Your task to perform on an android device: Open Chrome and go to settings Image 0: 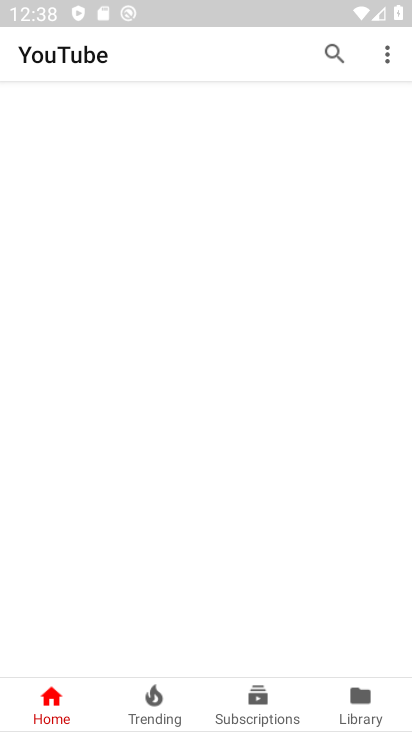
Step 0: drag from (215, 634) to (166, 394)
Your task to perform on an android device: Open Chrome and go to settings Image 1: 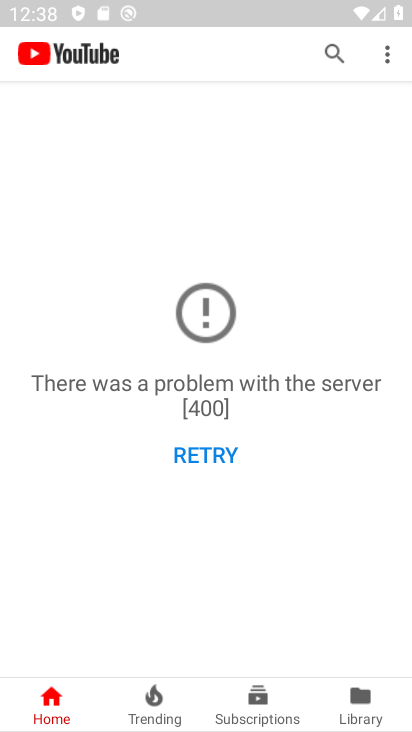
Step 1: press home button
Your task to perform on an android device: Open Chrome and go to settings Image 2: 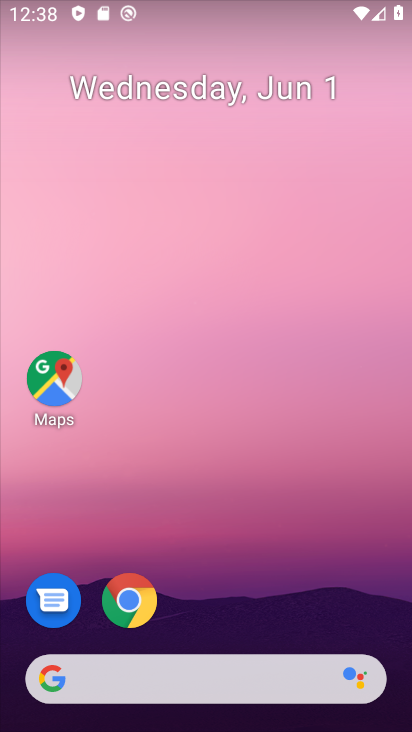
Step 2: click (142, 615)
Your task to perform on an android device: Open Chrome and go to settings Image 3: 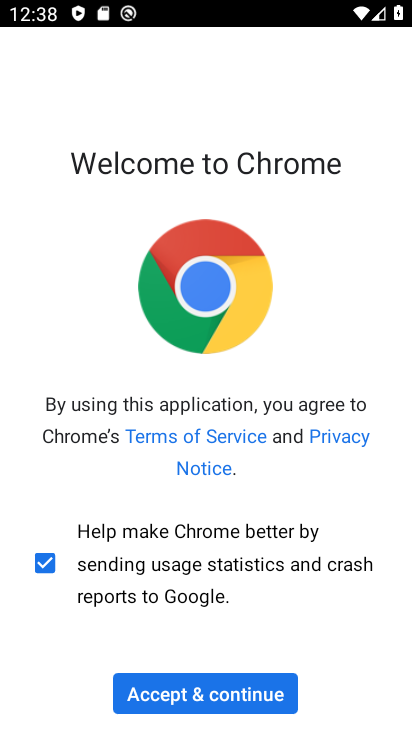
Step 3: click (170, 695)
Your task to perform on an android device: Open Chrome and go to settings Image 4: 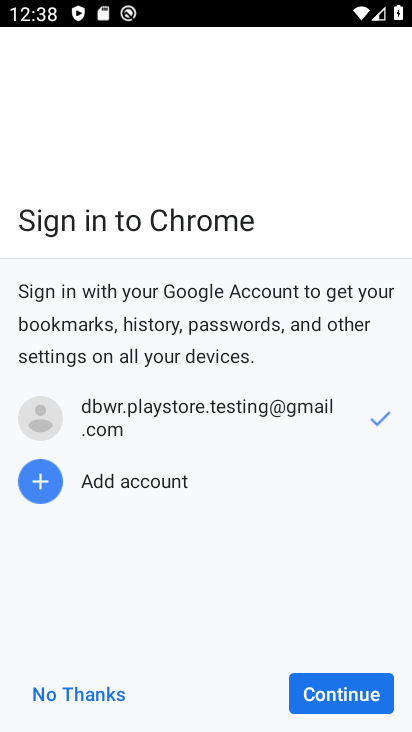
Step 4: click (348, 684)
Your task to perform on an android device: Open Chrome and go to settings Image 5: 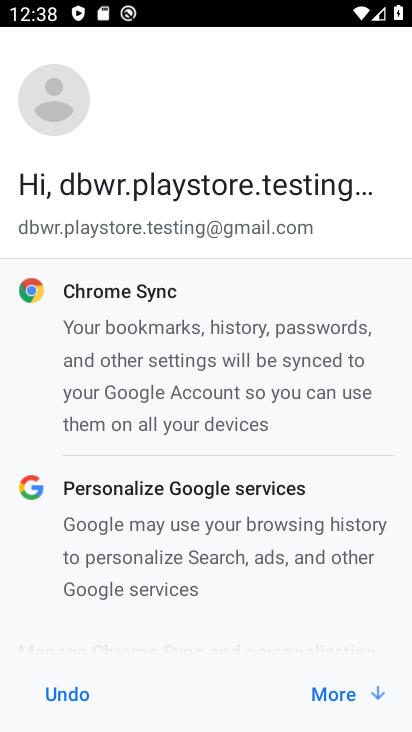
Step 5: click (346, 701)
Your task to perform on an android device: Open Chrome and go to settings Image 6: 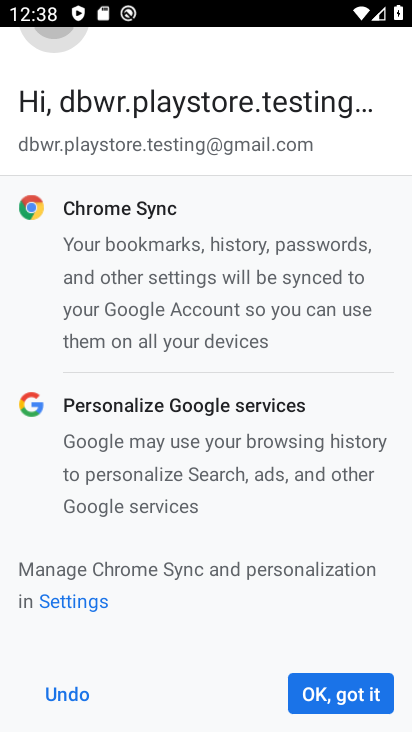
Step 6: click (342, 693)
Your task to perform on an android device: Open Chrome and go to settings Image 7: 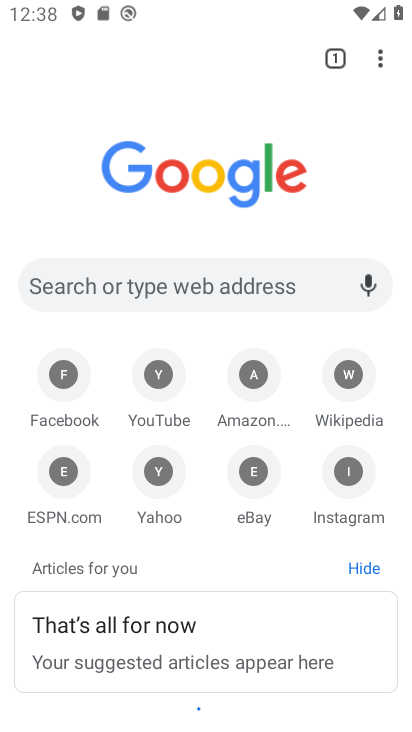
Step 7: click (378, 58)
Your task to perform on an android device: Open Chrome and go to settings Image 8: 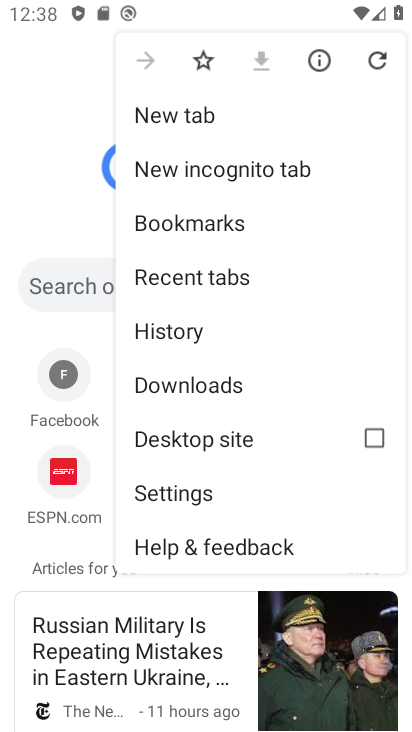
Step 8: click (163, 498)
Your task to perform on an android device: Open Chrome and go to settings Image 9: 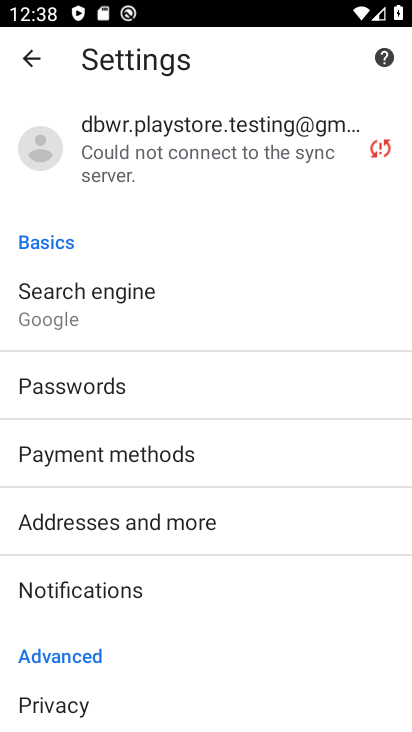
Step 9: task complete